Your task to perform on an android device: Empty the shopping cart on costco. Search for razer thresher on costco, select the first entry, add it to the cart, then select checkout. Image 0: 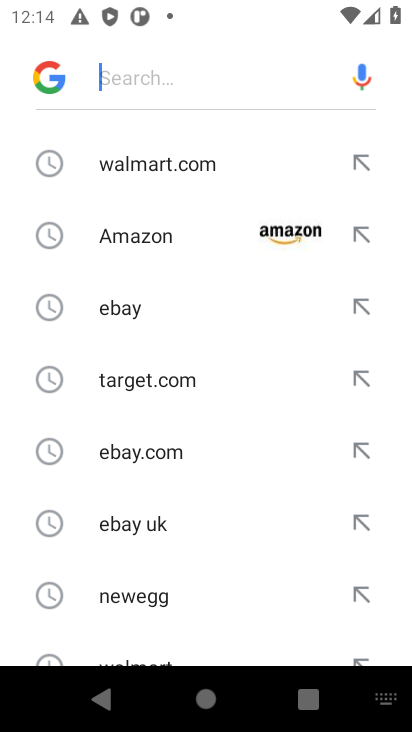
Step 0: press home button
Your task to perform on an android device: Empty the shopping cart on costco. Search for razer thresher on costco, select the first entry, add it to the cart, then select checkout. Image 1: 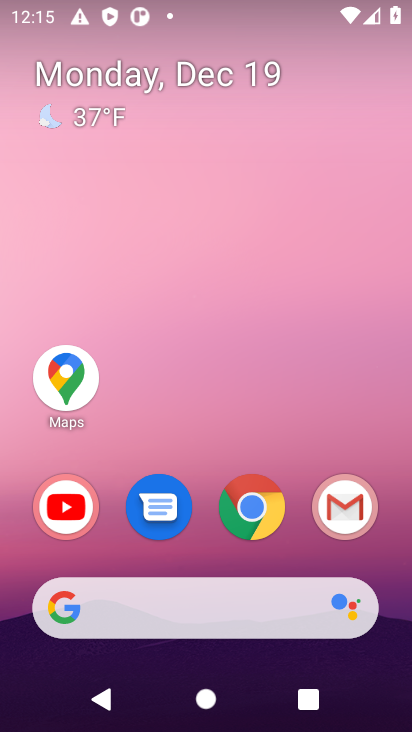
Step 1: click (259, 511)
Your task to perform on an android device: Empty the shopping cart on costco. Search for razer thresher on costco, select the first entry, add it to the cart, then select checkout. Image 2: 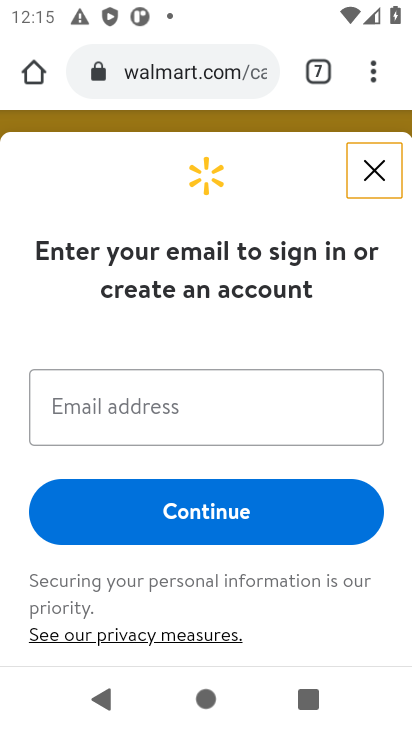
Step 2: click (146, 78)
Your task to perform on an android device: Empty the shopping cart on costco. Search for razer thresher on costco, select the first entry, add it to the cart, then select checkout. Image 3: 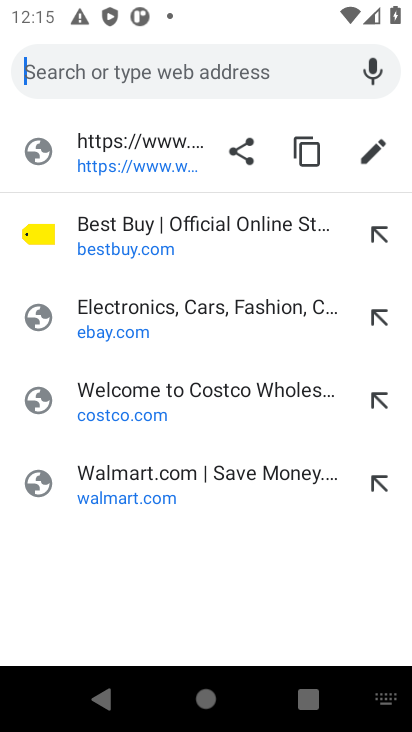
Step 3: click (105, 402)
Your task to perform on an android device: Empty the shopping cart on costco. Search for razer thresher on costco, select the first entry, add it to the cart, then select checkout. Image 4: 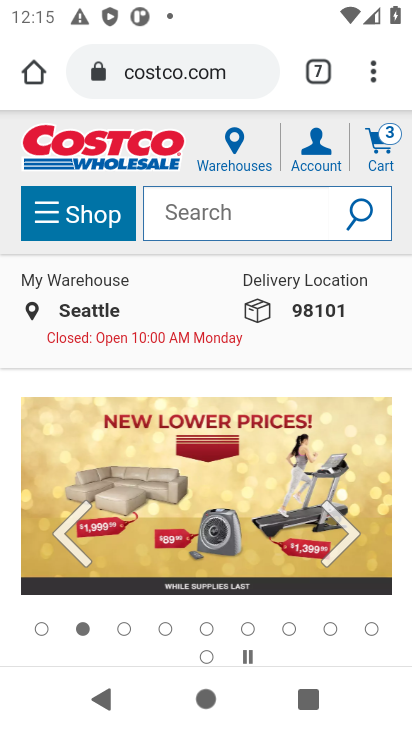
Step 4: click (375, 149)
Your task to perform on an android device: Empty the shopping cart on costco. Search for razer thresher on costco, select the first entry, add it to the cart, then select checkout. Image 5: 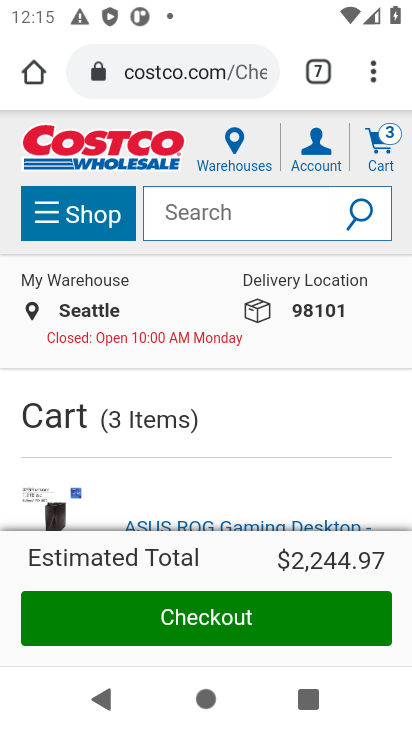
Step 5: drag from (194, 412) to (207, 129)
Your task to perform on an android device: Empty the shopping cart on costco. Search for razer thresher on costco, select the first entry, add it to the cart, then select checkout. Image 6: 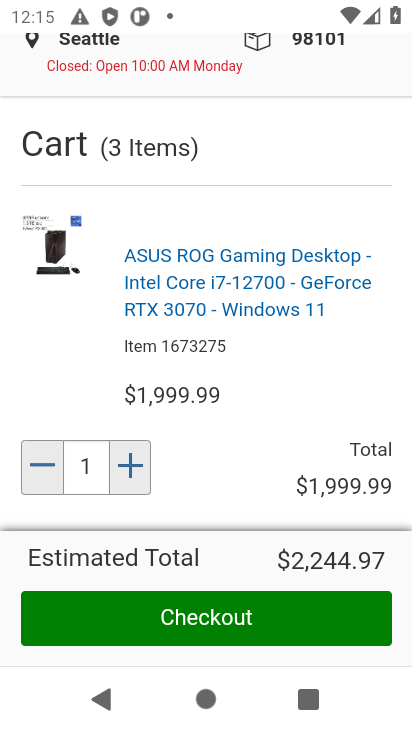
Step 6: drag from (171, 367) to (186, 150)
Your task to perform on an android device: Empty the shopping cart on costco. Search for razer thresher on costco, select the first entry, add it to the cart, then select checkout. Image 7: 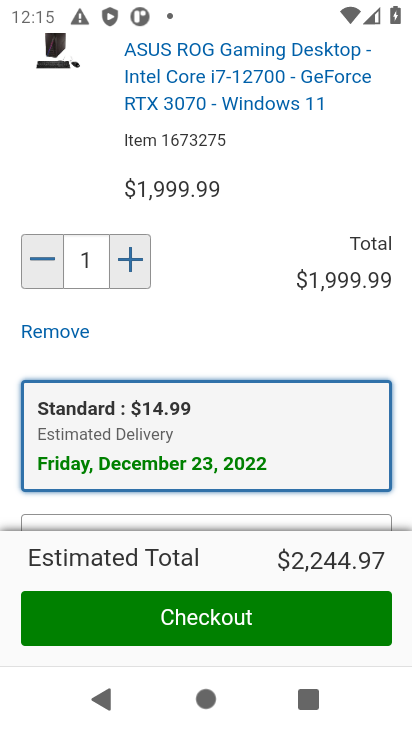
Step 7: drag from (212, 401) to (212, 129)
Your task to perform on an android device: Empty the shopping cart on costco. Search for razer thresher on costco, select the first entry, add it to the cart, then select checkout. Image 8: 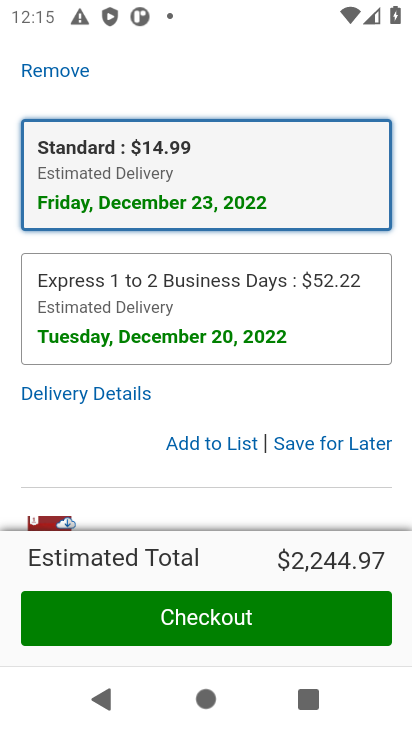
Step 8: click (316, 449)
Your task to perform on an android device: Empty the shopping cart on costco. Search for razer thresher on costco, select the first entry, add it to the cart, then select checkout. Image 9: 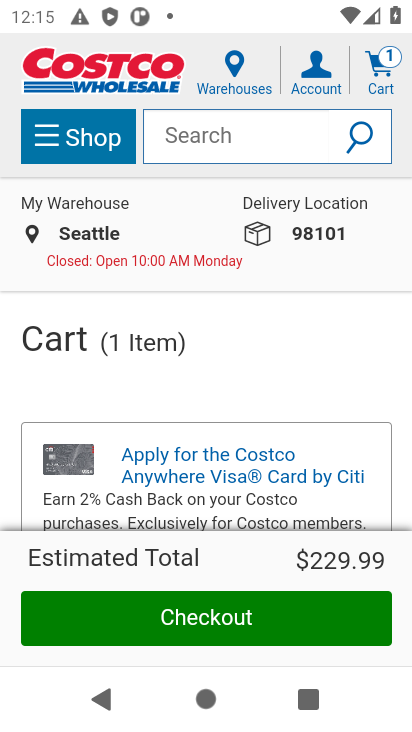
Step 9: drag from (208, 472) to (194, 216)
Your task to perform on an android device: Empty the shopping cart on costco. Search for razer thresher on costco, select the first entry, add it to the cart, then select checkout. Image 10: 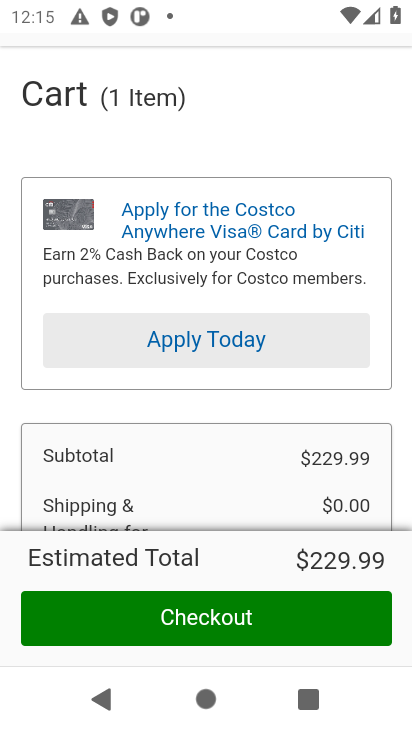
Step 10: drag from (244, 215) to (201, 526)
Your task to perform on an android device: Empty the shopping cart on costco. Search for razer thresher on costco, select the first entry, add it to the cart, then select checkout. Image 11: 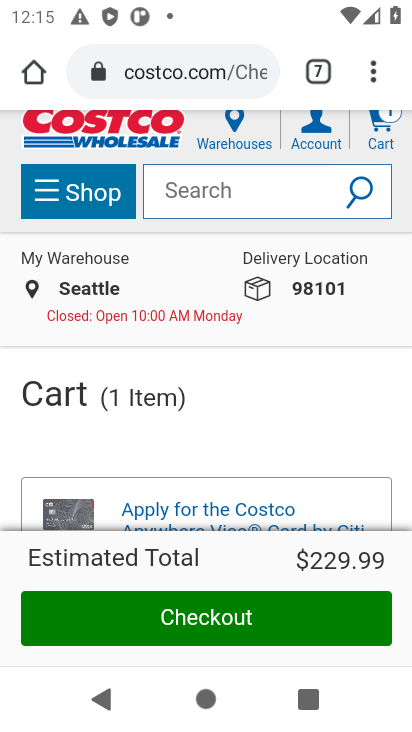
Step 11: drag from (230, 431) to (231, 110)
Your task to perform on an android device: Empty the shopping cart on costco. Search for razer thresher on costco, select the first entry, add it to the cart, then select checkout. Image 12: 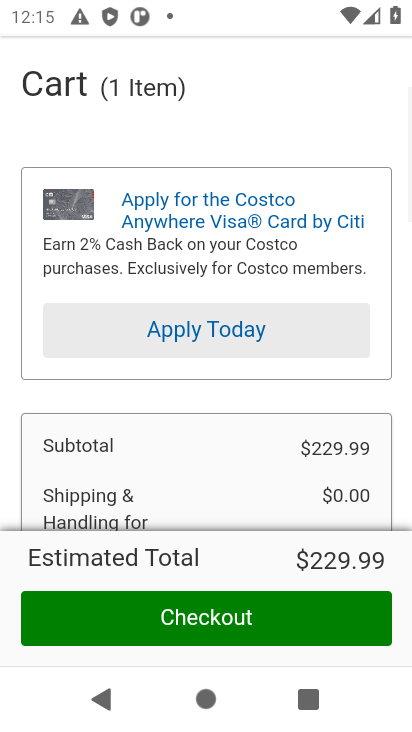
Step 12: drag from (209, 360) to (221, 130)
Your task to perform on an android device: Empty the shopping cart on costco. Search for razer thresher on costco, select the first entry, add it to the cart, then select checkout. Image 13: 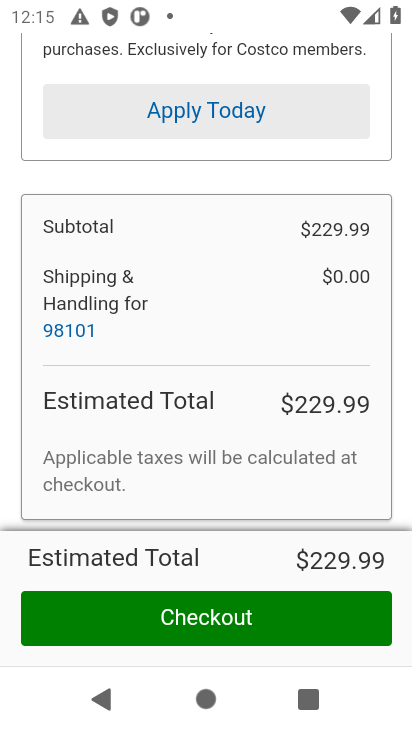
Step 13: drag from (240, 412) to (230, 133)
Your task to perform on an android device: Empty the shopping cart on costco. Search for razer thresher on costco, select the first entry, add it to the cart, then select checkout. Image 14: 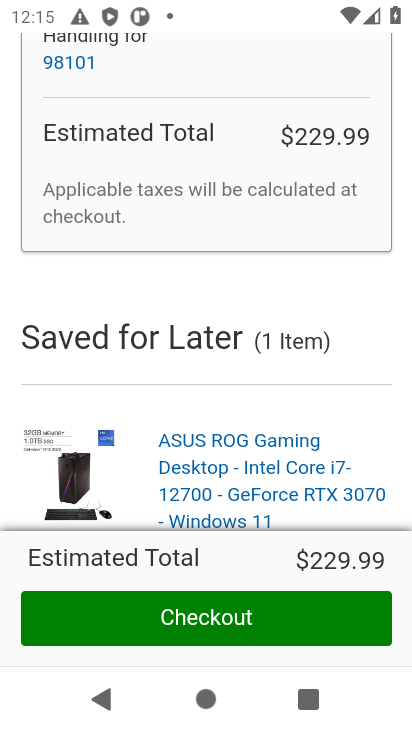
Step 14: drag from (296, 406) to (277, 172)
Your task to perform on an android device: Empty the shopping cart on costco. Search for razer thresher on costco, select the first entry, add it to the cart, then select checkout. Image 15: 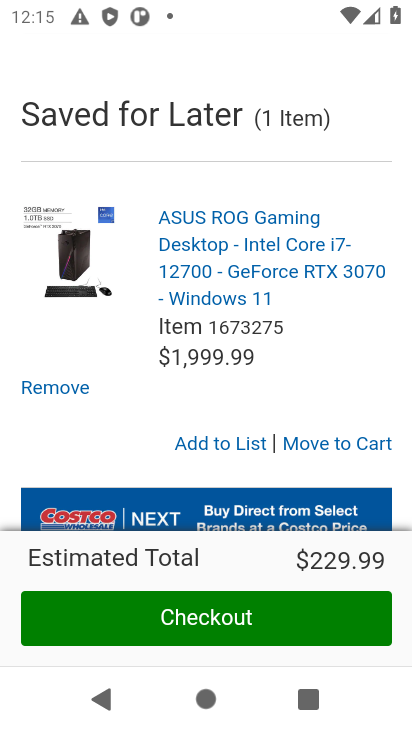
Step 15: drag from (240, 211) to (203, 554)
Your task to perform on an android device: Empty the shopping cart on costco. Search for razer thresher on costco, select the first entry, add it to the cart, then select checkout. Image 16: 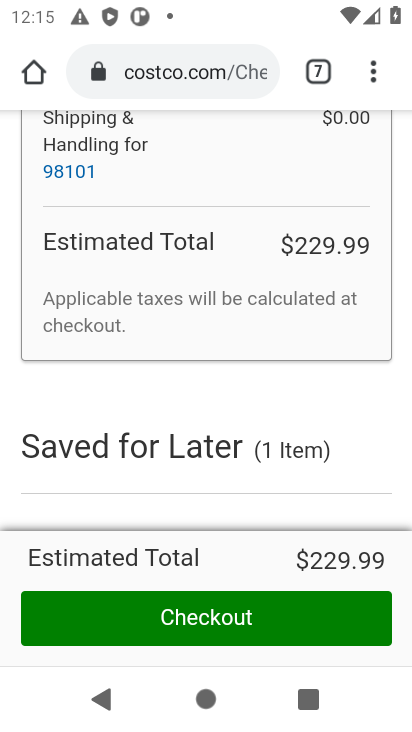
Step 16: drag from (200, 336) to (176, 571)
Your task to perform on an android device: Empty the shopping cart on costco. Search for razer thresher on costco, select the first entry, add it to the cart, then select checkout. Image 17: 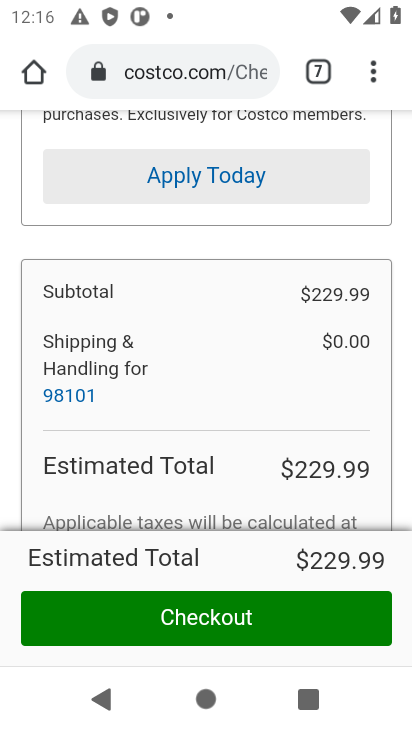
Step 17: drag from (194, 324) to (168, 541)
Your task to perform on an android device: Empty the shopping cart on costco. Search for razer thresher on costco, select the first entry, add it to the cart, then select checkout. Image 18: 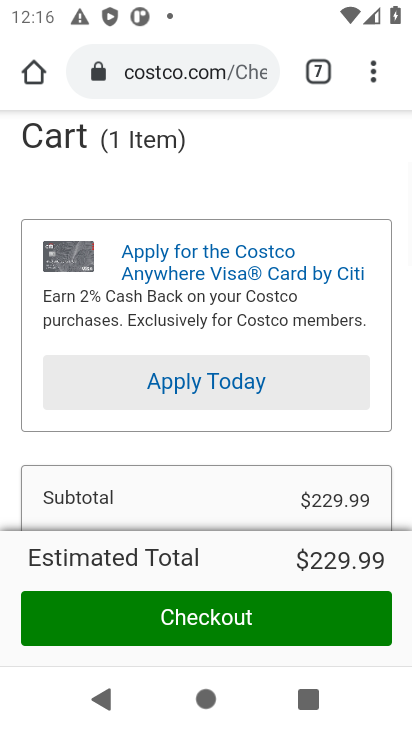
Step 18: drag from (188, 285) to (165, 517)
Your task to perform on an android device: Empty the shopping cart on costco. Search for razer thresher on costco, select the first entry, add it to the cart, then select checkout. Image 19: 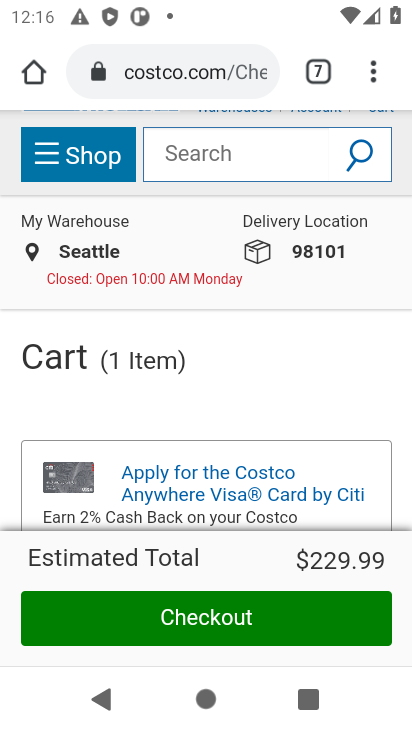
Step 19: drag from (210, 355) to (188, 528)
Your task to perform on an android device: Empty the shopping cart on costco. Search for razer thresher on costco, select the first entry, add it to the cart, then select checkout. Image 20: 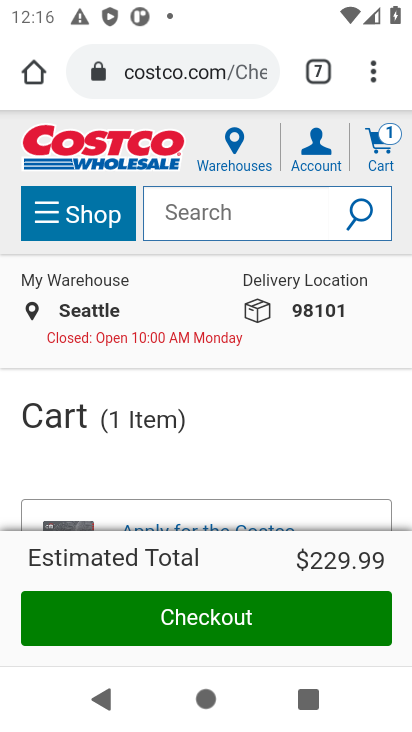
Step 20: click (390, 140)
Your task to perform on an android device: Empty the shopping cart on costco. Search for razer thresher on costco, select the first entry, add it to the cart, then select checkout. Image 21: 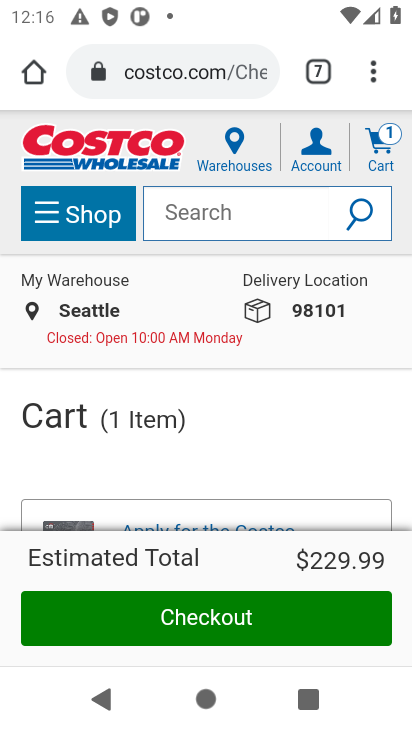
Step 21: drag from (219, 441) to (245, 195)
Your task to perform on an android device: Empty the shopping cart on costco. Search for razer thresher on costco, select the first entry, add it to the cart, then select checkout. Image 22: 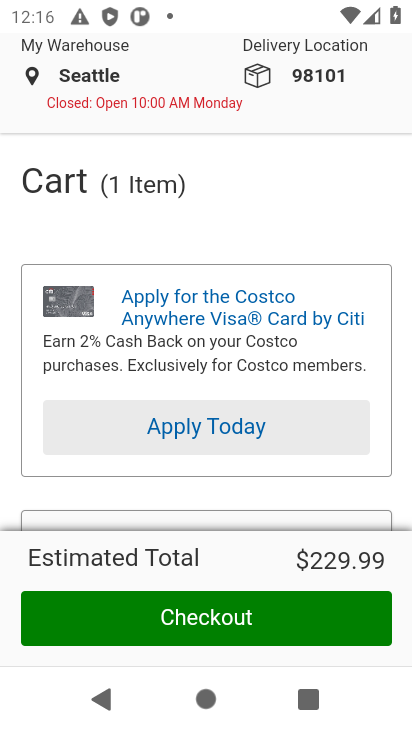
Step 22: drag from (239, 443) to (239, 207)
Your task to perform on an android device: Empty the shopping cart on costco. Search for razer thresher on costco, select the first entry, add it to the cart, then select checkout. Image 23: 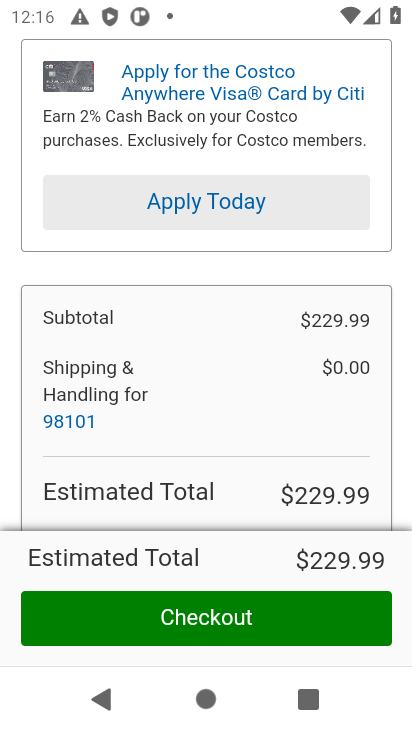
Step 23: drag from (233, 375) to (230, 148)
Your task to perform on an android device: Empty the shopping cart on costco. Search for razer thresher on costco, select the first entry, add it to the cart, then select checkout. Image 24: 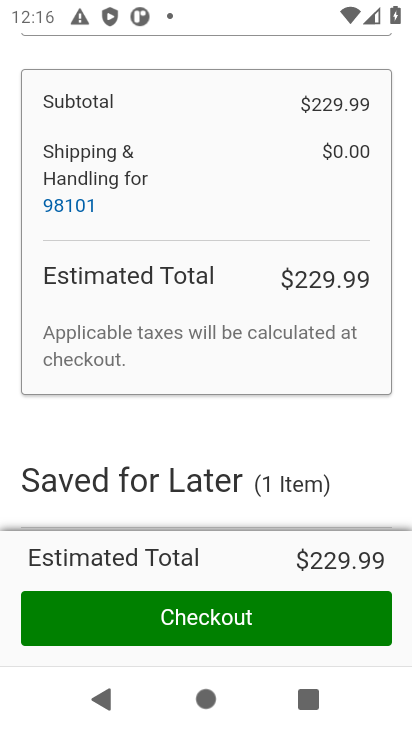
Step 24: drag from (234, 335) to (233, 149)
Your task to perform on an android device: Empty the shopping cart on costco. Search for razer thresher on costco, select the first entry, add it to the cart, then select checkout. Image 25: 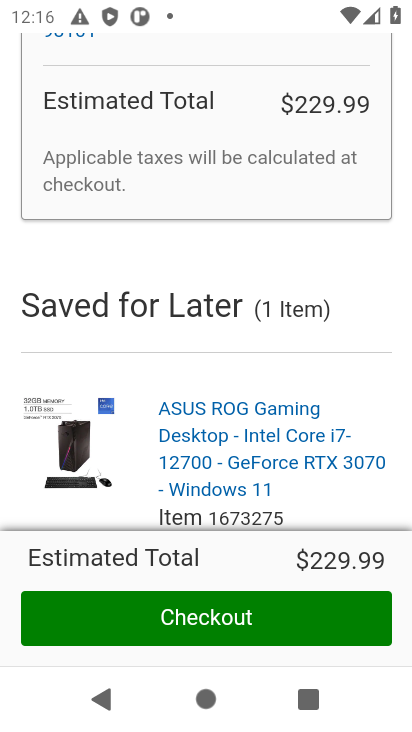
Step 25: drag from (241, 401) to (237, 182)
Your task to perform on an android device: Empty the shopping cart on costco. Search for razer thresher on costco, select the first entry, add it to the cart, then select checkout. Image 26: 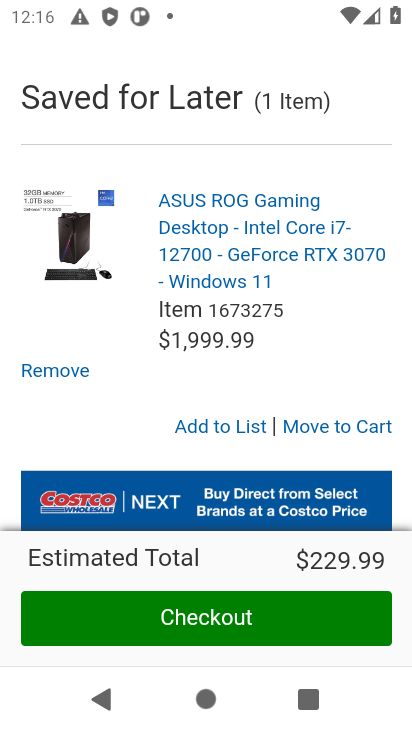
Step 26: drag from (212, 425) to (211, 154)
Your task to perform on an android device: Empty the shopping cart on costco. Search for razer thresher on costco, select the first entry, add it to the cart, then select checkout. Image 27: 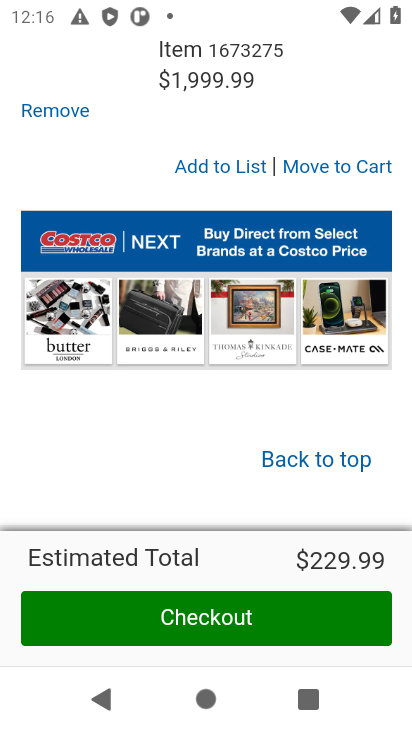
Step 27: click (52, 111)
Your task to perform on an android device: Empty the shopping cart on costco. Search for razer thresher on costco, select the first entry, add it to the cart, then select checkout. Image 28: 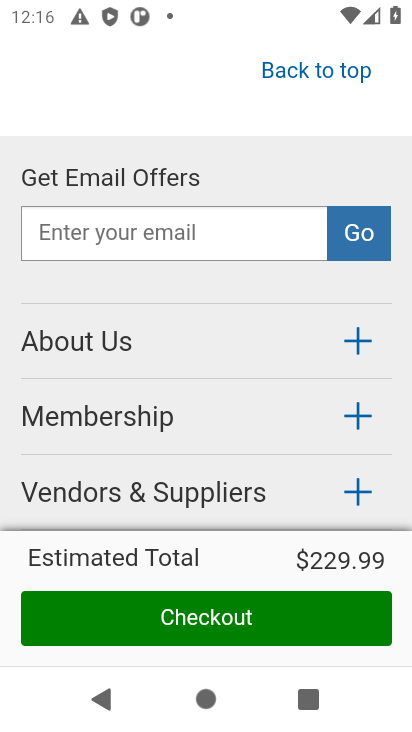
Step 28: drag from (176, 170) to (100, 582)
Your task to perform on an android device: Empty the shopping cart on costco. Search for razer thresher on costco, select the first entry, add it to the cart, then select checkout. Image 29: 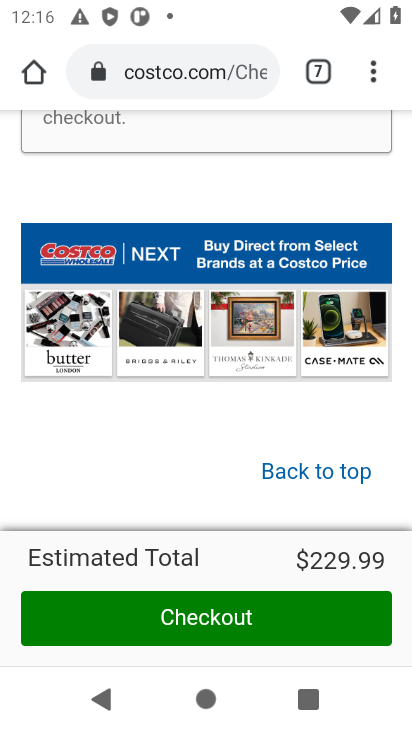
Step 29: drag from (162, 165) to (38, 642)
Your task to perform on an android device: Empty the shopping cart on costco. Search for razer thresher on costco, select the first entry, add it to the cart, then select checkout. Image 30: 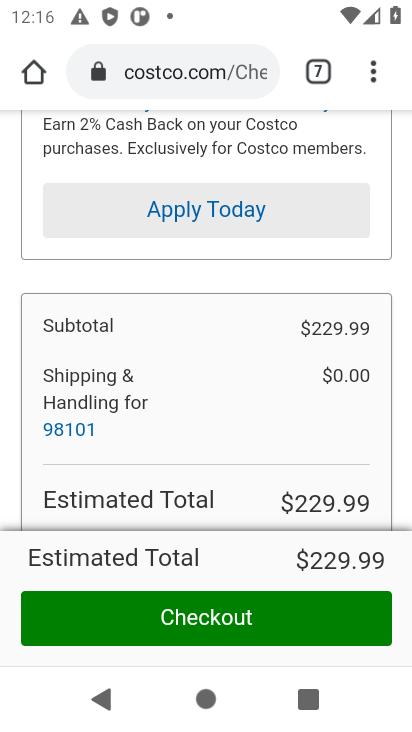
Step 30: drag from (205, 183) to (99, 610)
Your task to perform on an android device: Empty the shopping cart on costco. Search for razer thresher on costco, select the first entry, add it to the cart, then select checkout. Image 31: 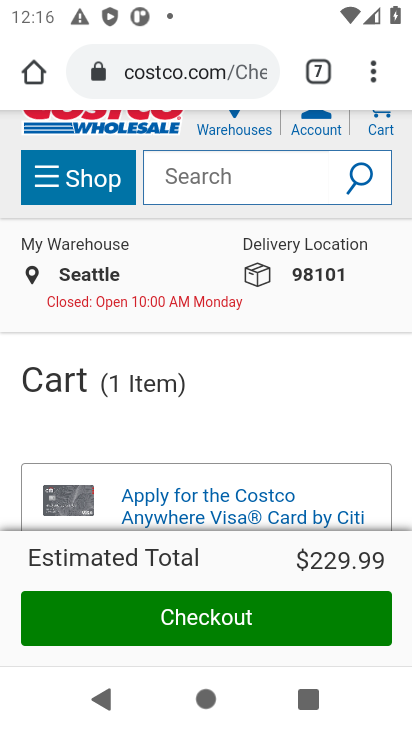
Step 31: drag from (185, 289) to (141, 511)
Your task to perform on an android device: Empty the shopping cart on costco. Search for razer thresher on costco, select the first entry, add it to the cart, then select checkout. Image 32: 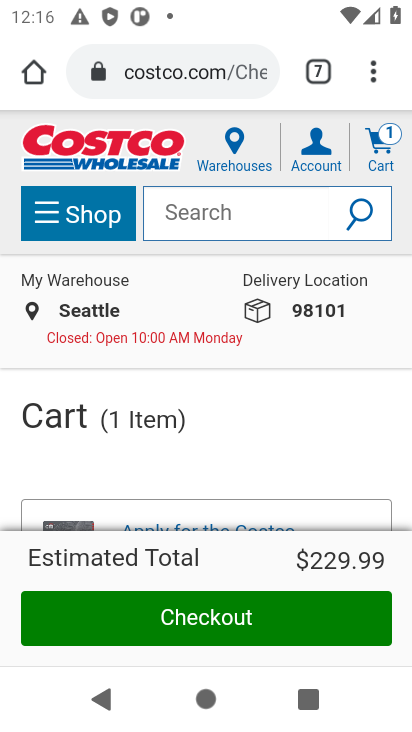
Step 32: drag from (209, 456) to (214, 206)
Your task to perform on an android device: Empty the shopping cart on costco. Search for razer thresher on costco, select the first entry, add it to the cart, then select checkout. Image 33: 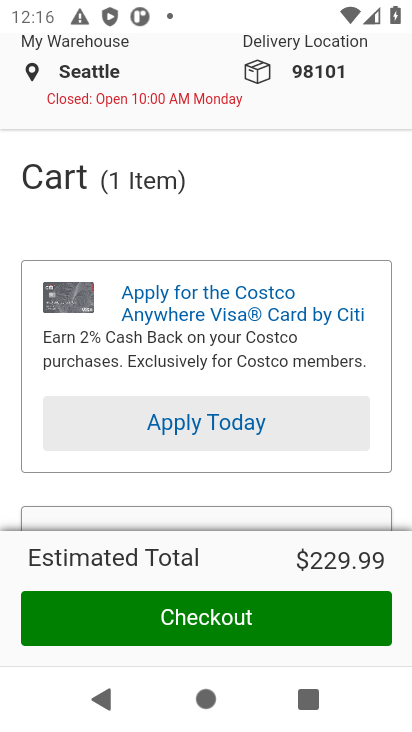
Step 33: drag from (212, 385) to (210, 221)
Your task to perform on an android device: Empty the shopping cart on costco. Search for razer thresher on costco, select the first entry, add it to the cart, then select checkout. Image 34: 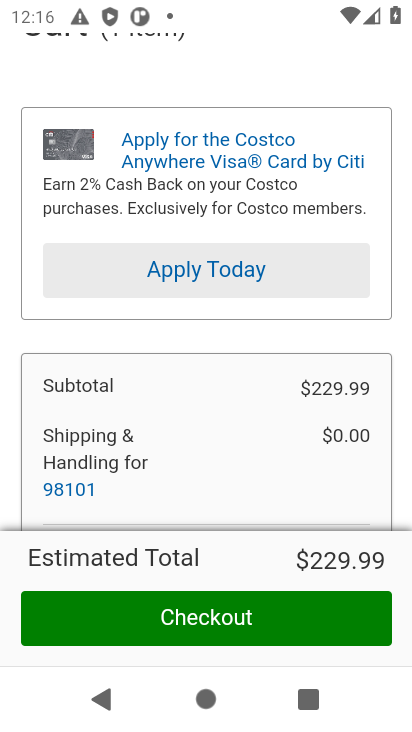
Step 34: drag from (205, 341) to (205, 143)
Your task to perform on an android device: Empty the shopping cart on costco. Search for razer thresher on costco, select the first entry, add it to the cart, then select checkout. Image 35: 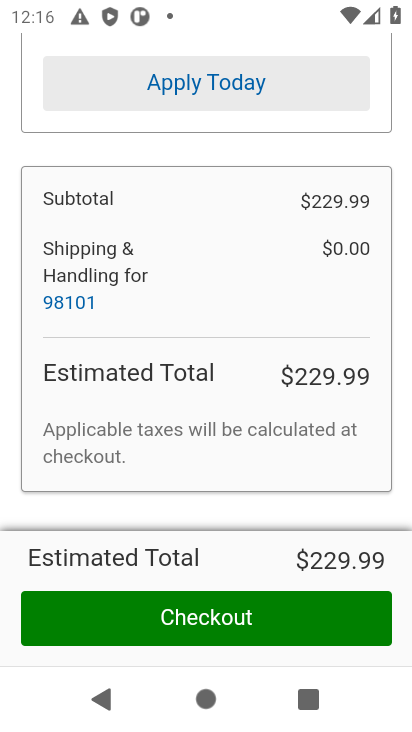
Step 35: drag from (213, 369) to (211, 159)
Your task to perform on an android device: Empty the shopping cart on costco. Search for razer thresher on costco, select the first entry, add it to the cart, then select checkout. Image 36: 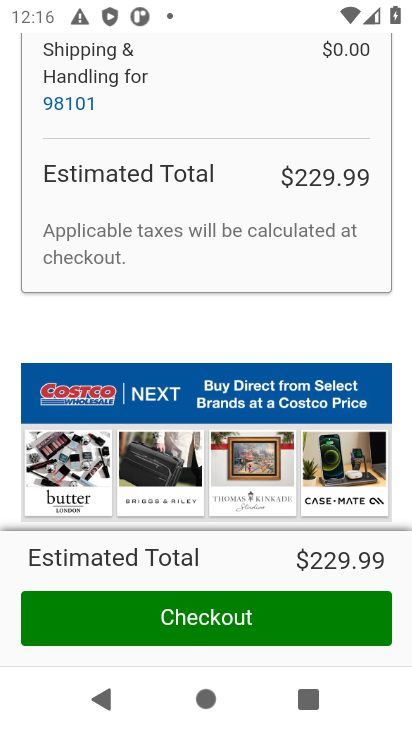
Step 36: drag from (206, 383) to (210, 155)
Your task to perform on an android device: Empty the shopping cart on costco. Search for razer thresher on costco, select the first entry, add it to the cart, then select checkout. Image 37: 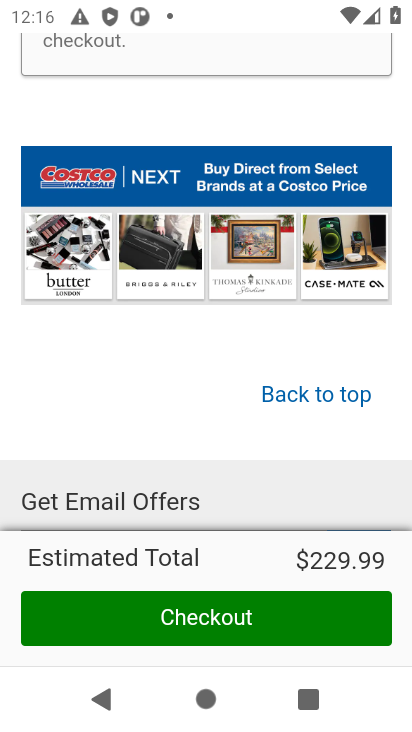
Step 37: drag from (200, 413) to (195, 252)
Your task to perform on an android device: Empty the shopping cart on costco. Search for razer thresher on costco, select the first entry, add it to the cart, then select checkout. Image 38: 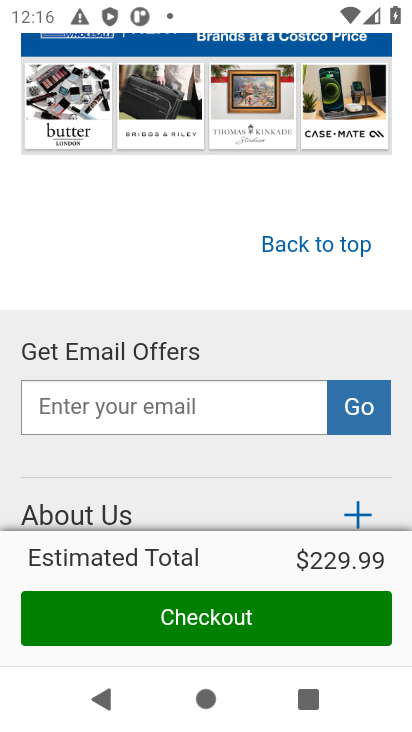
Step 38: drag from (185, 438) to (182, 173)
Your task to perform on an android device: Empty the shopping cart on costco. Search for razer thresher on costco, select the first entry, add it to the cart, then select checkout. Image 39: 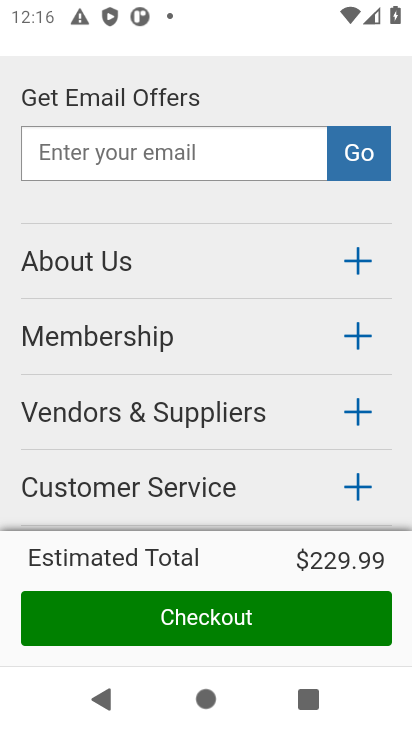
Step 39: drag from (166, 372) to (156, 200)
Your task to perform on an android device: Empty the shopping cart on costco. Search for razer thresher on costco, select the first entry, add it to the cart, then select checkout. Image 40: 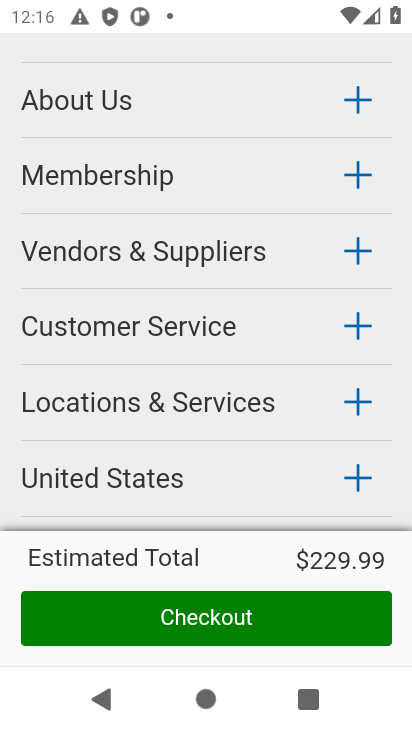
Step 40: drag from (144, 446) to (144, 125)
Your task to perform on an android device: Empty the shopping cart on costco. Search for razer thresher on costco, select the first entry, add it to the cart, then select checkout. Image 41: 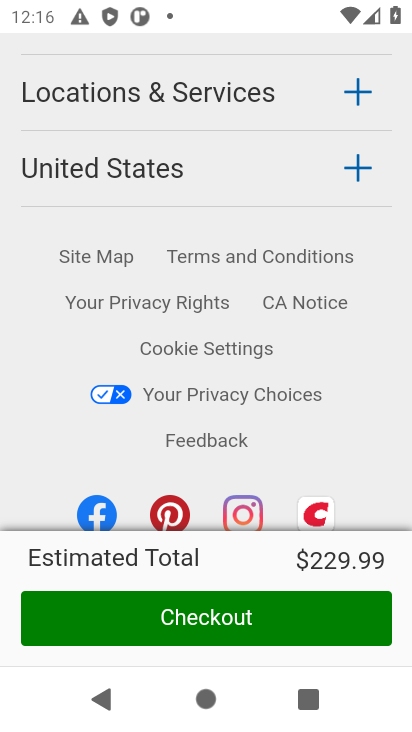
Step 41: drag from (176, 398) to (146, 25)
Your task to perform on an android device: Empty the shopping cart on costco. Search for razer thresher on costco, select the first entry, add it to the cart, then select checkout. Image 42: 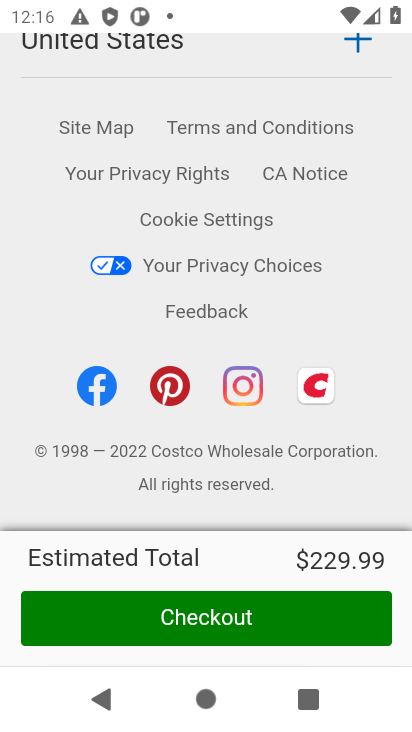
Step 42: drag from (135, 399) to (135, 197)
Your task to perform on an android device: Empty the shopping cart on costco. Search for razer thresher on costco, select the first entry, add it to the cart, then select checkout. Image 43: 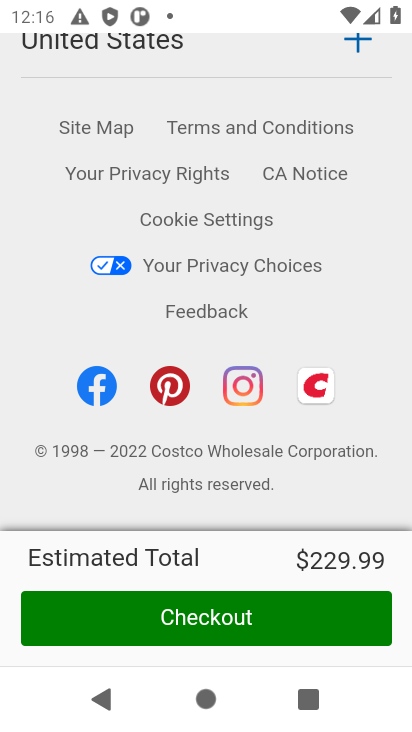
Step 43: click (113, 562)
Your task to perform on an android device: Empty the shopping cart on costco. Search for razer thresher on costco, select the first entry, add it to the cart, then select checkout. Image 44: 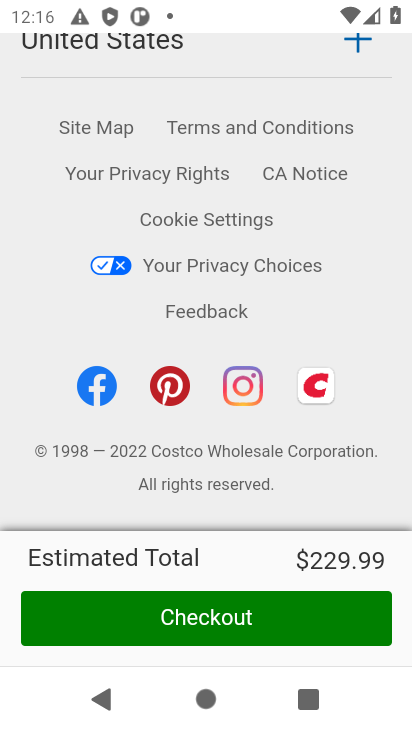
Step 44: task complete